Your task to perform on an android device: open app "Firefox Browser" (install if not already installed) and enter user name: "hashed@outlook.com" and password: "congestive" Image 0: 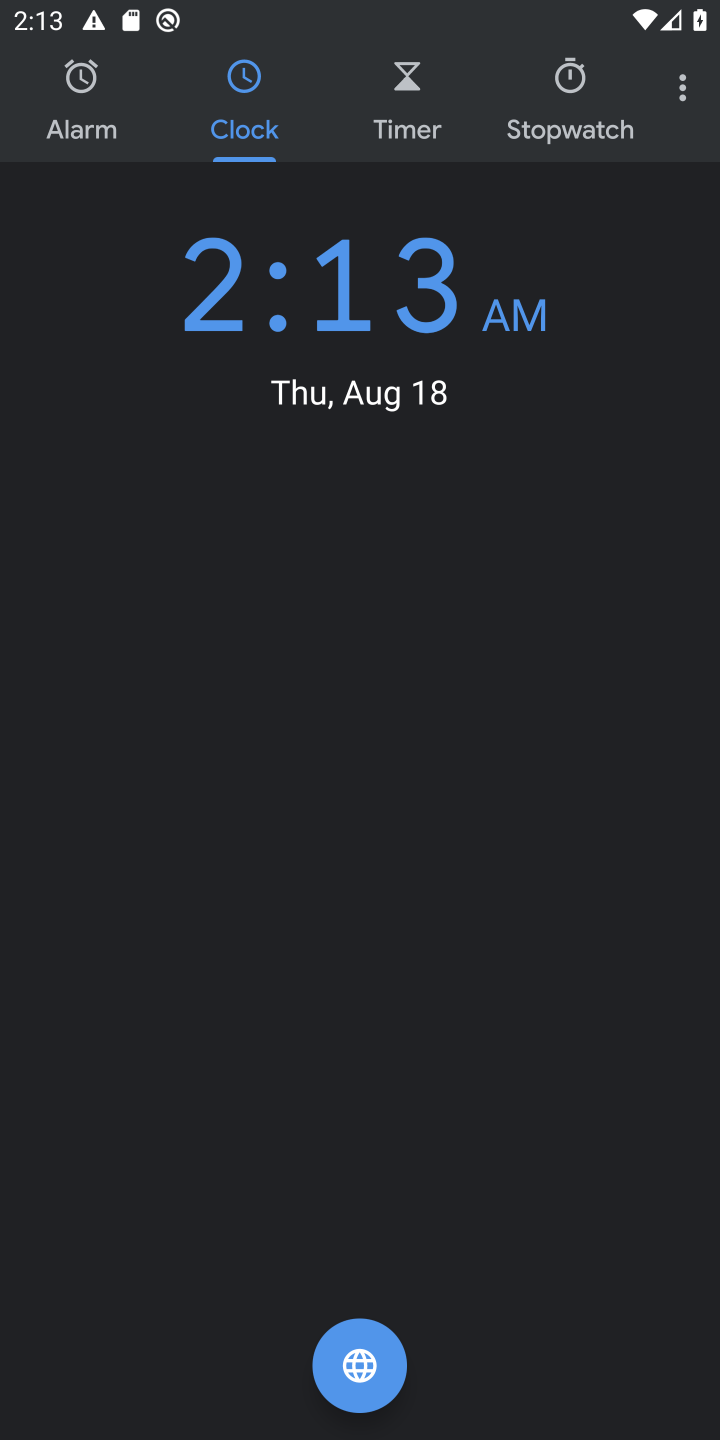
Step 0: press home button
Your task to perform on an android device: open app "Firefox Browser" (install if not already installed) and enter user name: "hashed@outlook.com" and password: "congestive" Image 1: 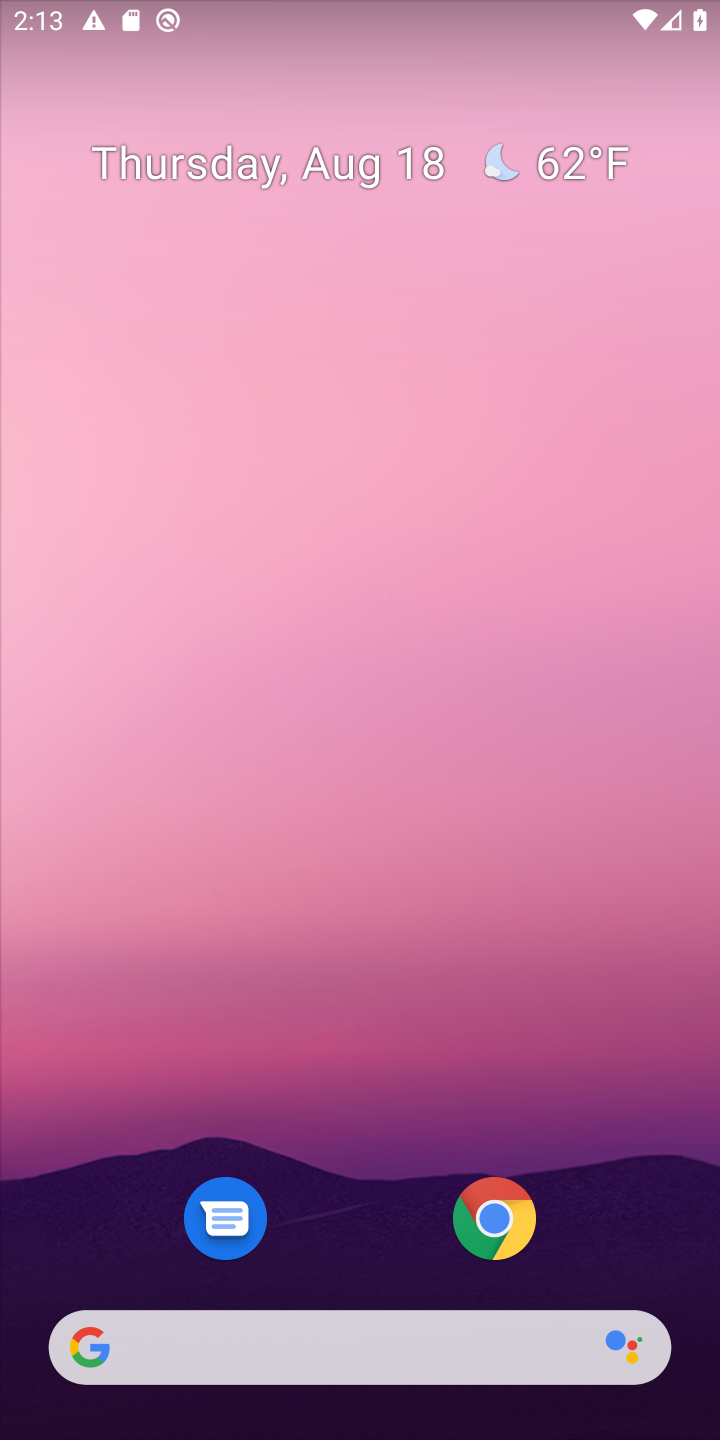
Step 1: drag from (350, 1147) to (302, 475)
Your task to perform on an android device: open app "Firefox Browser" (install if not already installed) and enter user name: "hashed@outlook.com" and password: "congestive" Image 2: 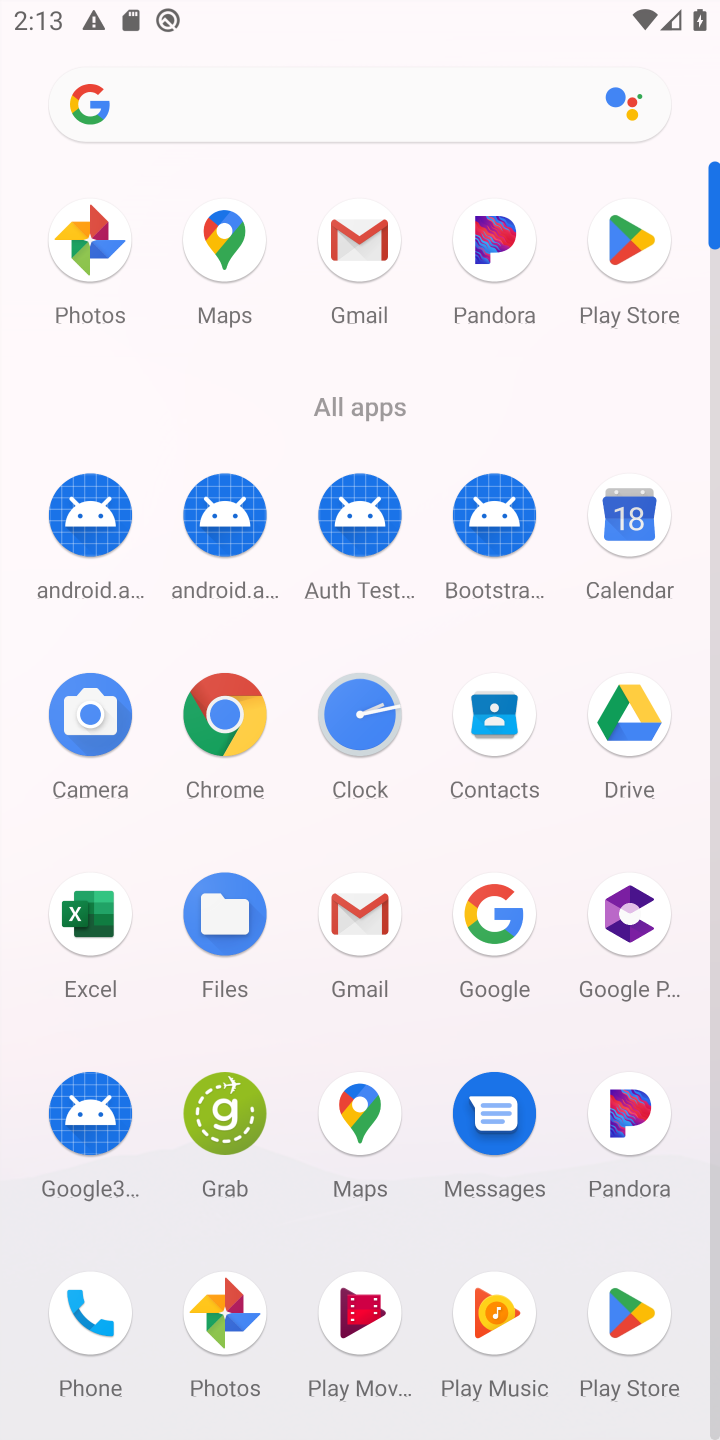
Step 2: click (593, 233)
Your task to perform on an android device: open app "Firefox Browser" (install if not already installed) and enter user name: "hashed@outlook.com" and password: "congestive" Image 3: 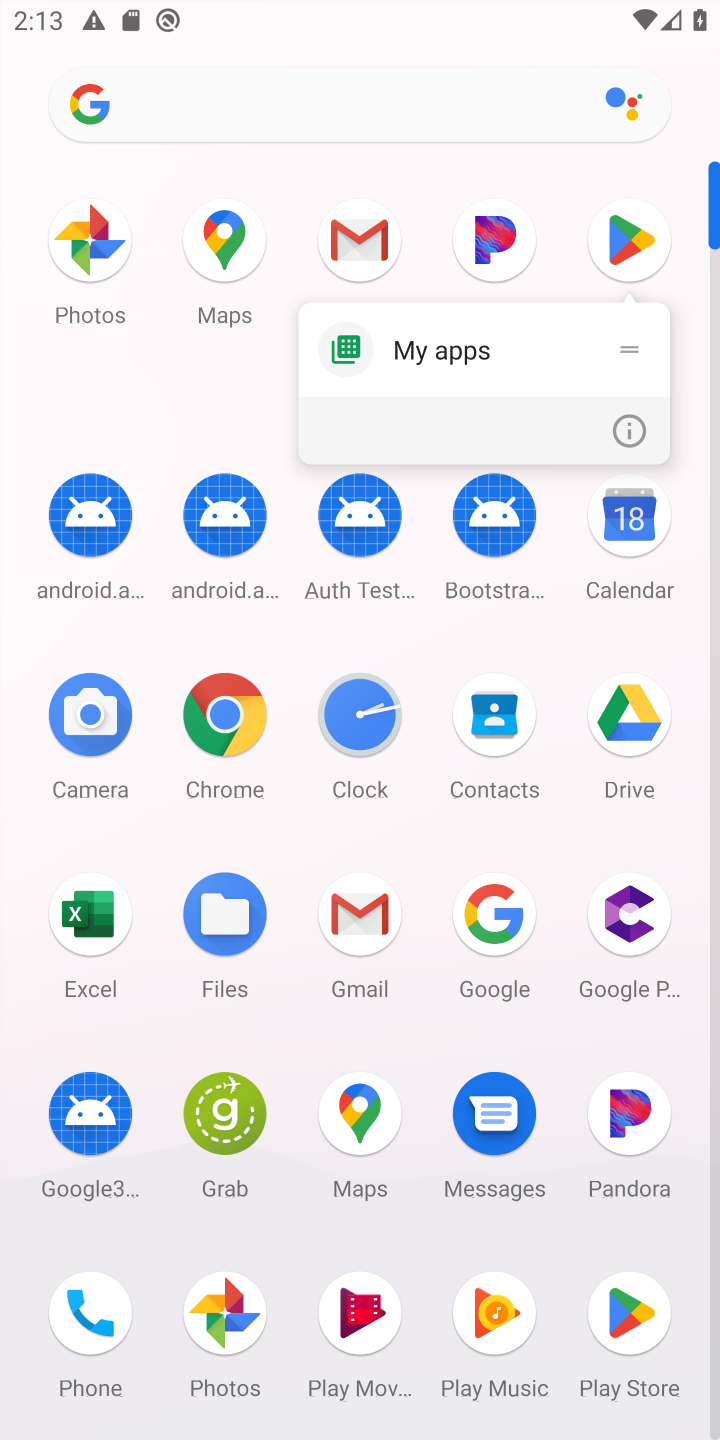
Step 3: click (605, 237)
Your task to perform on an android device: open app "Firefox Browser" (install if not already installed) and enter user name: "hashed@outlook.com" and password: "congestive" Image 4: 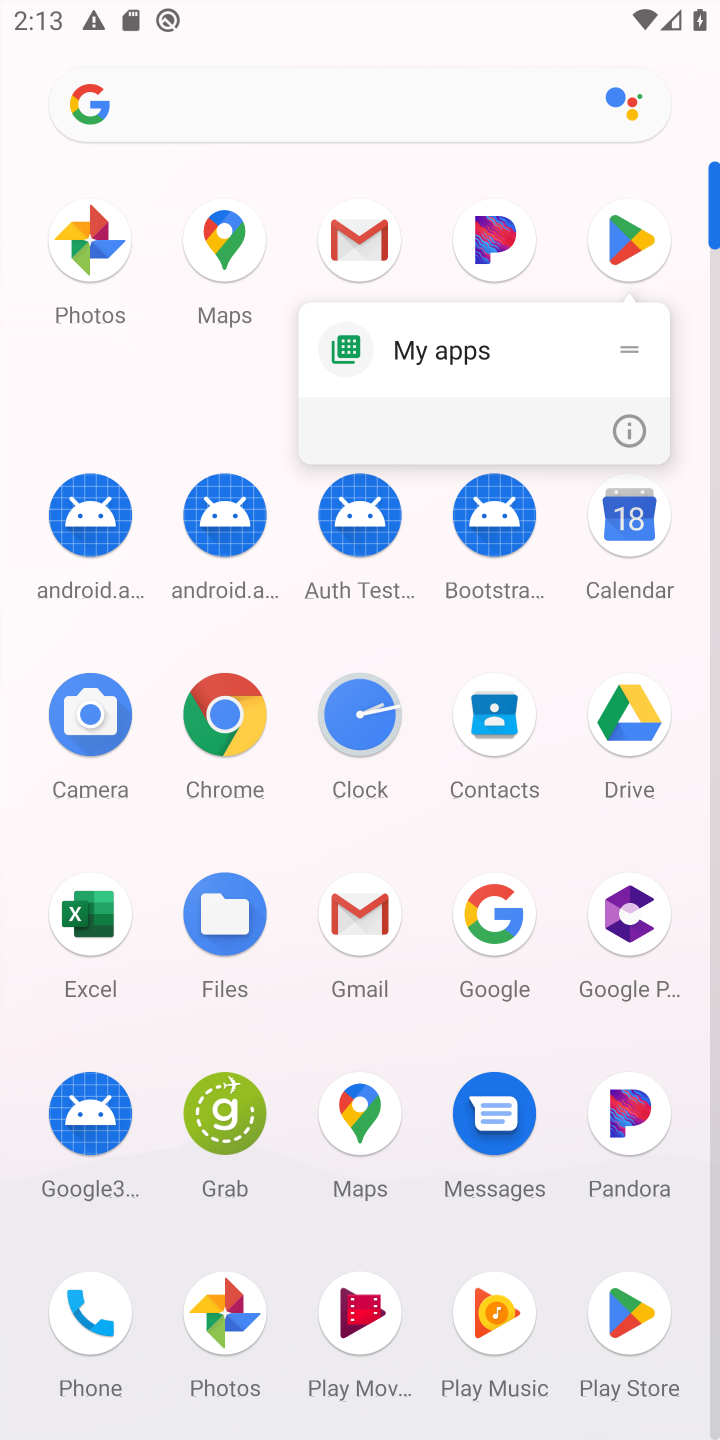
Step 4: click (619, 237)
Your task to perform on an android device: open app "Firefox Browser" (install if not already installed) and enter user name: "hashed@outlook.com" and password: "congestive" Image 5: 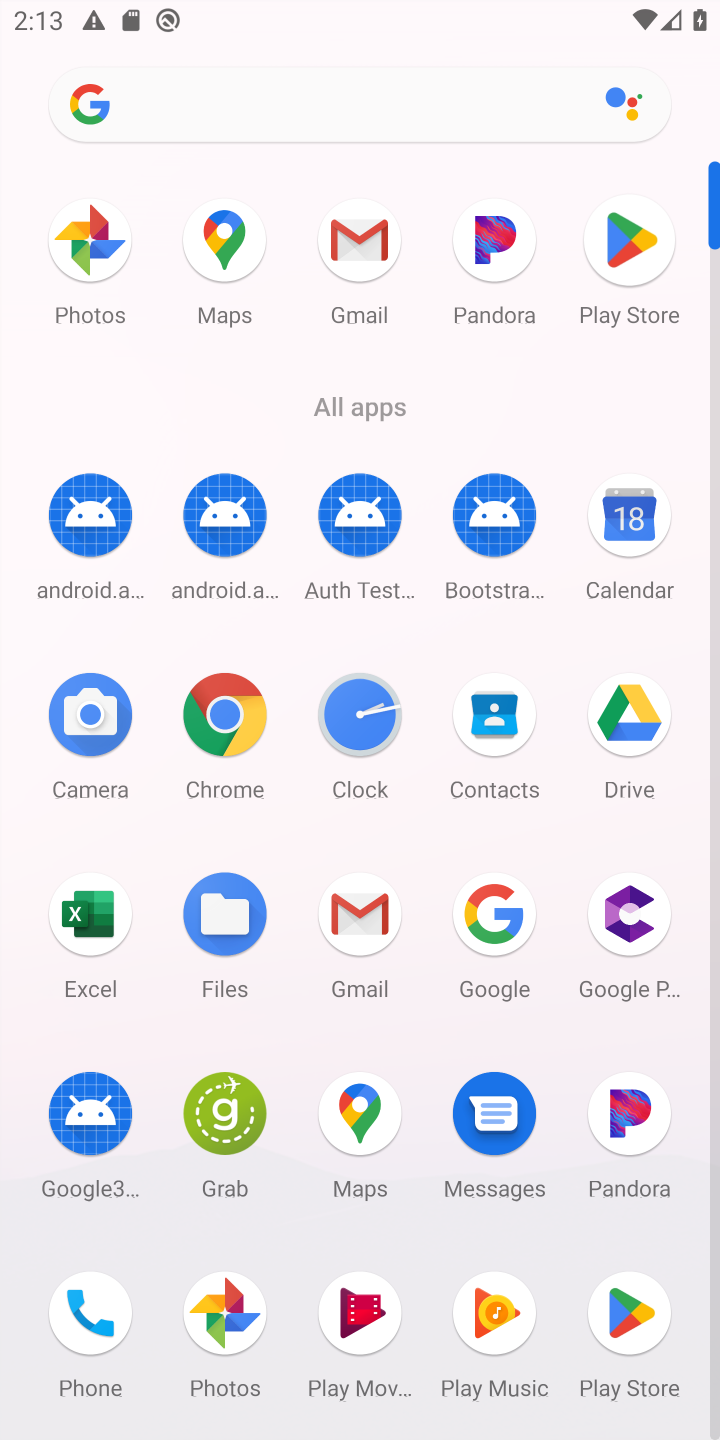
Step 5: click (619, 237)
Your task to perform on an android device: open app "Firefox Browser" (install if not already installed) and enter user name: "hashed@outlook.com" and password: "congestive" Image 6: 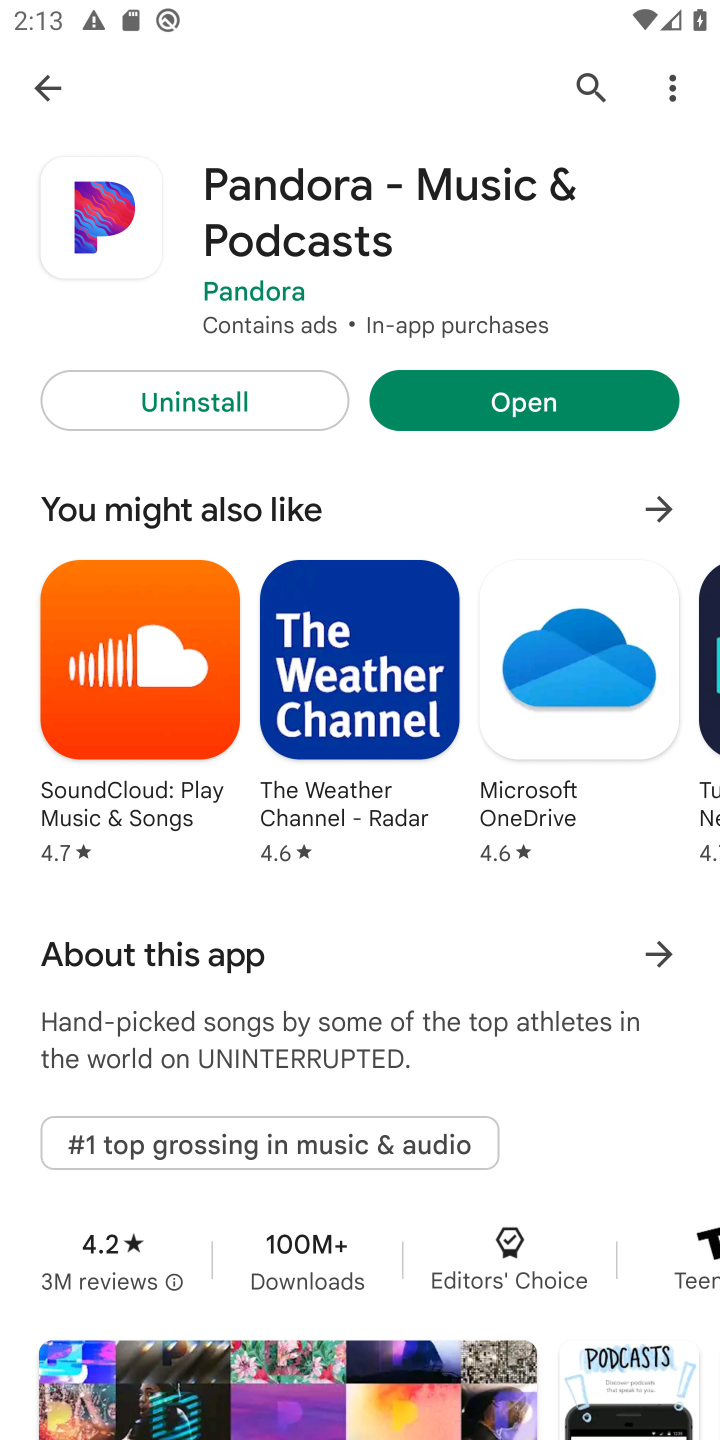
Step 6: click (611, 94)
Your task to perform on an android device: open app "Firefox Browser" (install if not already installed) and enter user name: "hashed@outlook.com" and password: "congestive" Image 7: 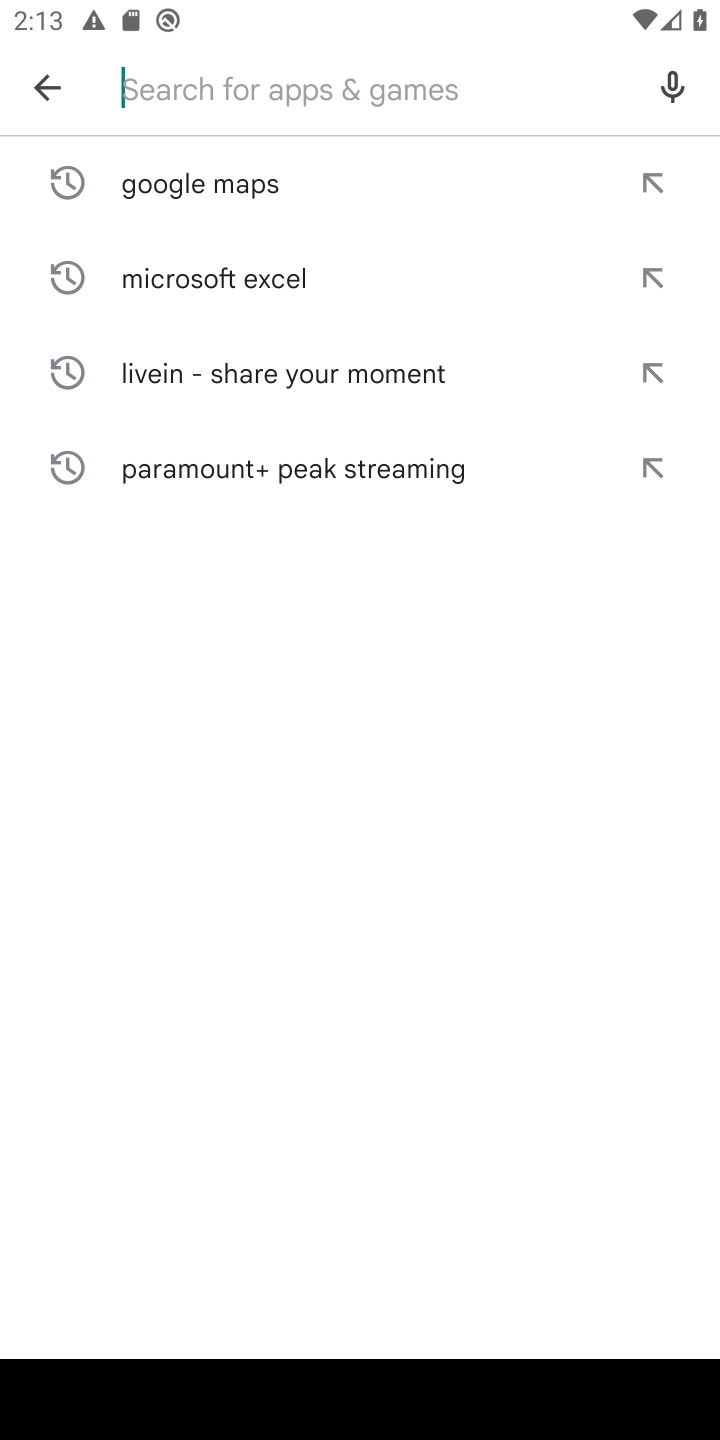
Step 7: type "Firefox Browser"
Your task to perform on an android device: open app "Firefox Browser" (install if not already installed) and enter user name: "hashed@outlook.com" and password: "congestive" Image 8: 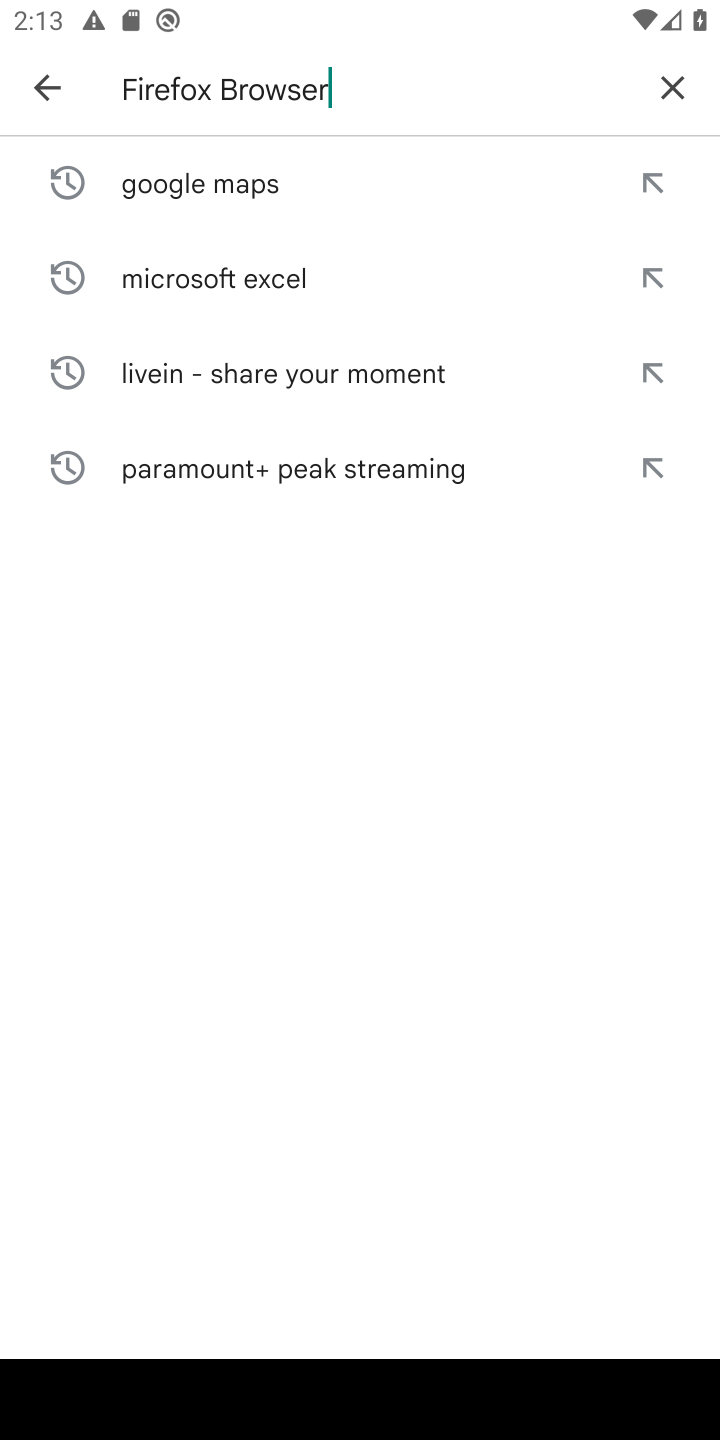
Step 8: type ""
Your task to perform on an android device: open app "Firefox Browser" (install if not already installed) and enter user name: "hashed@outlook.com" and password: "congestive" Image 9: 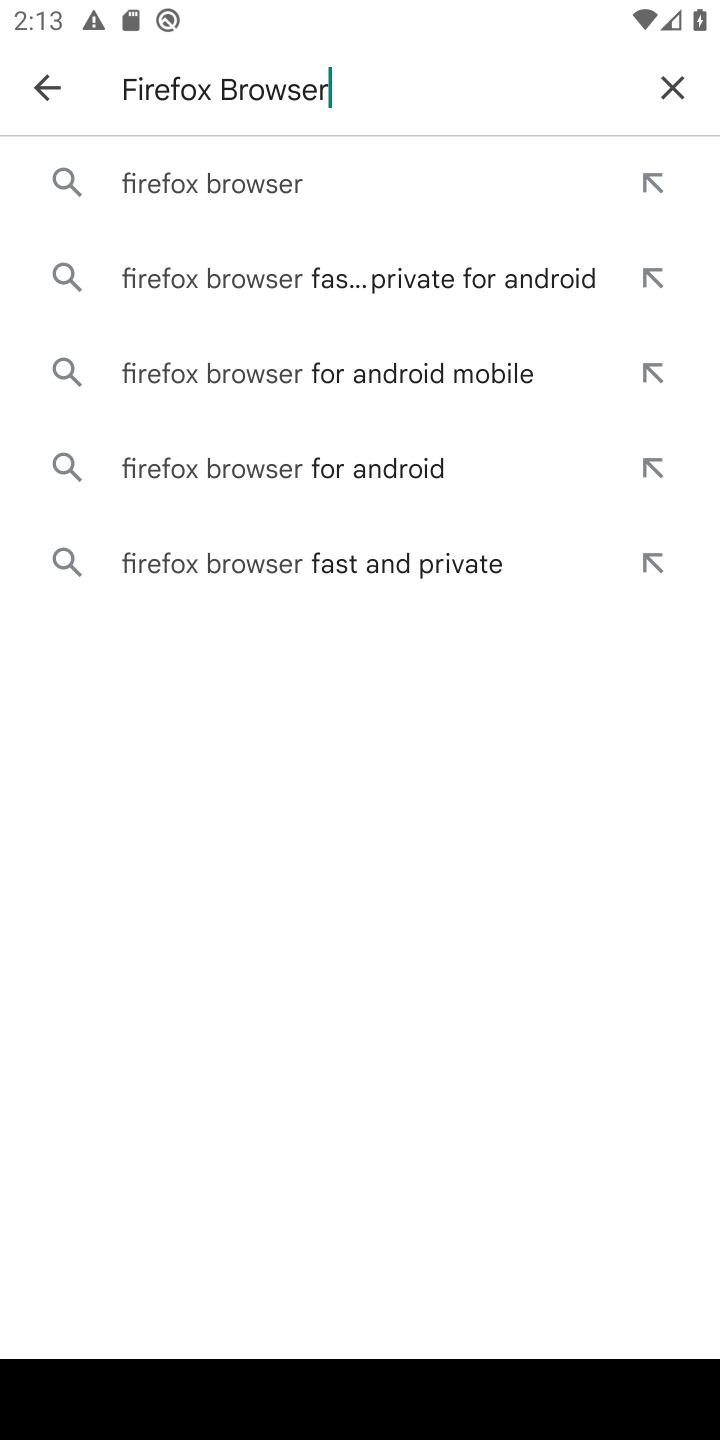
Step 9: click (258, 186)
Your task to perform on an android device: open app "Firefox Browser" (install if not already installed) and enter user name: "hashed@outlook.com" and password: "congestive" Image 10: 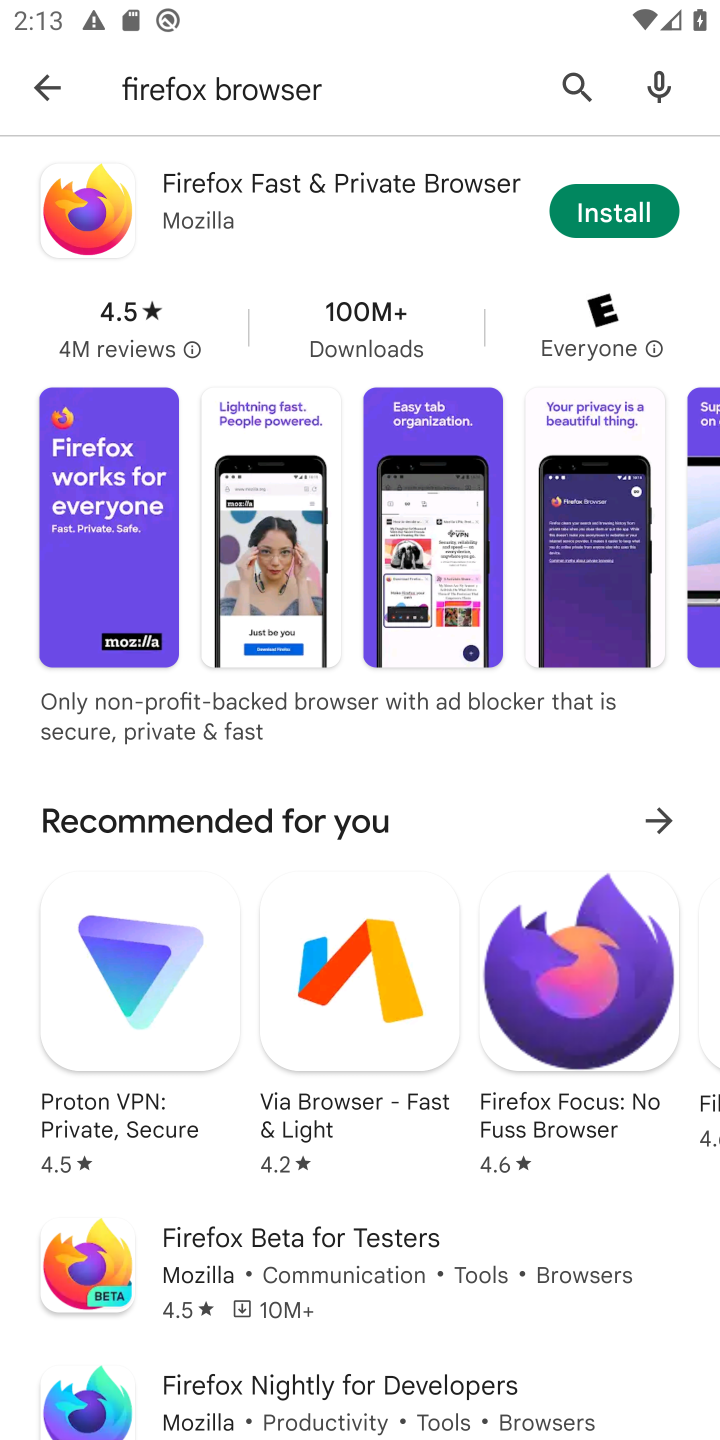
Step 10: click (608, 206)
Your task to perform on an android device: open app "Firefox Browser" (install if not already installed) and enter user name: "hashed@outlook.com" and password: "congestive" Image 11: 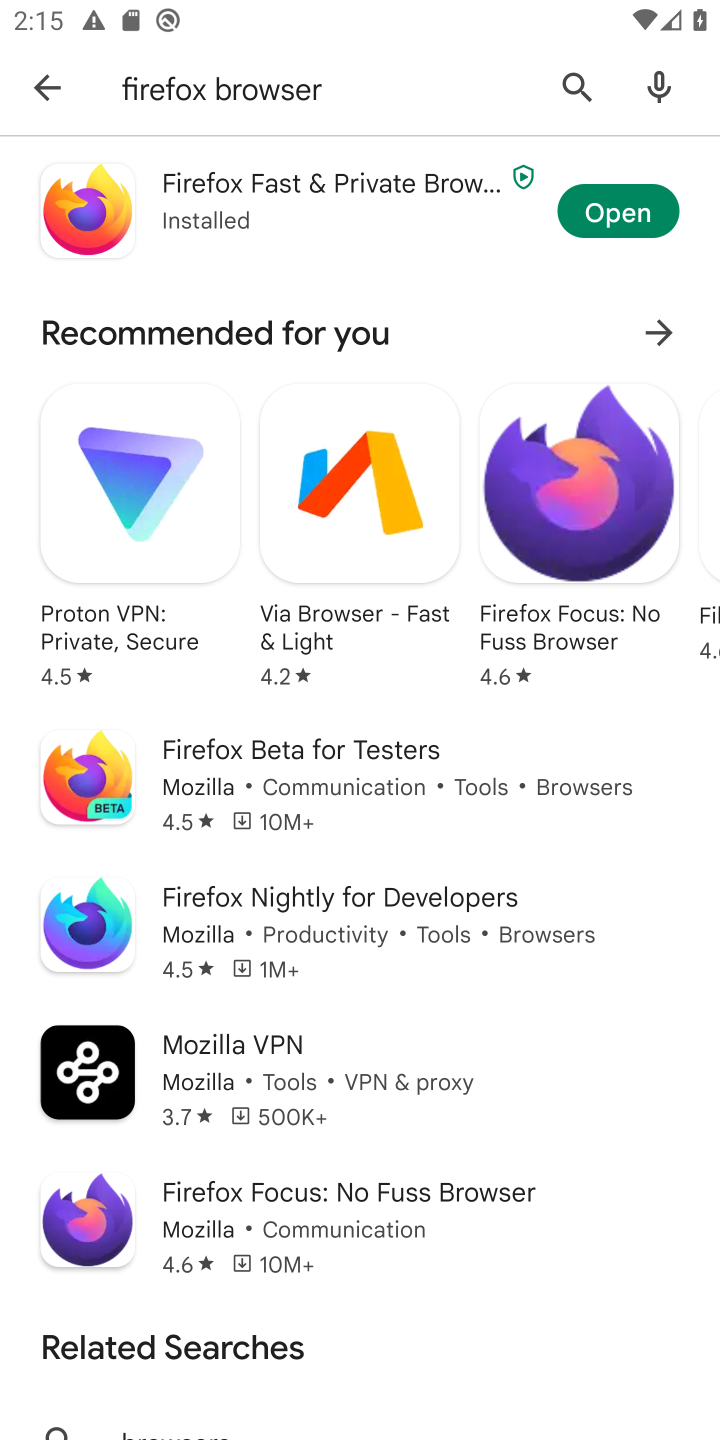
Step 11: click (654, 204)
Your task to perform on an android device: open app "Firefox Browser" (install if not already installed) and enter user name: "hashed@outlook.com" and password: "congestive" Image 12: 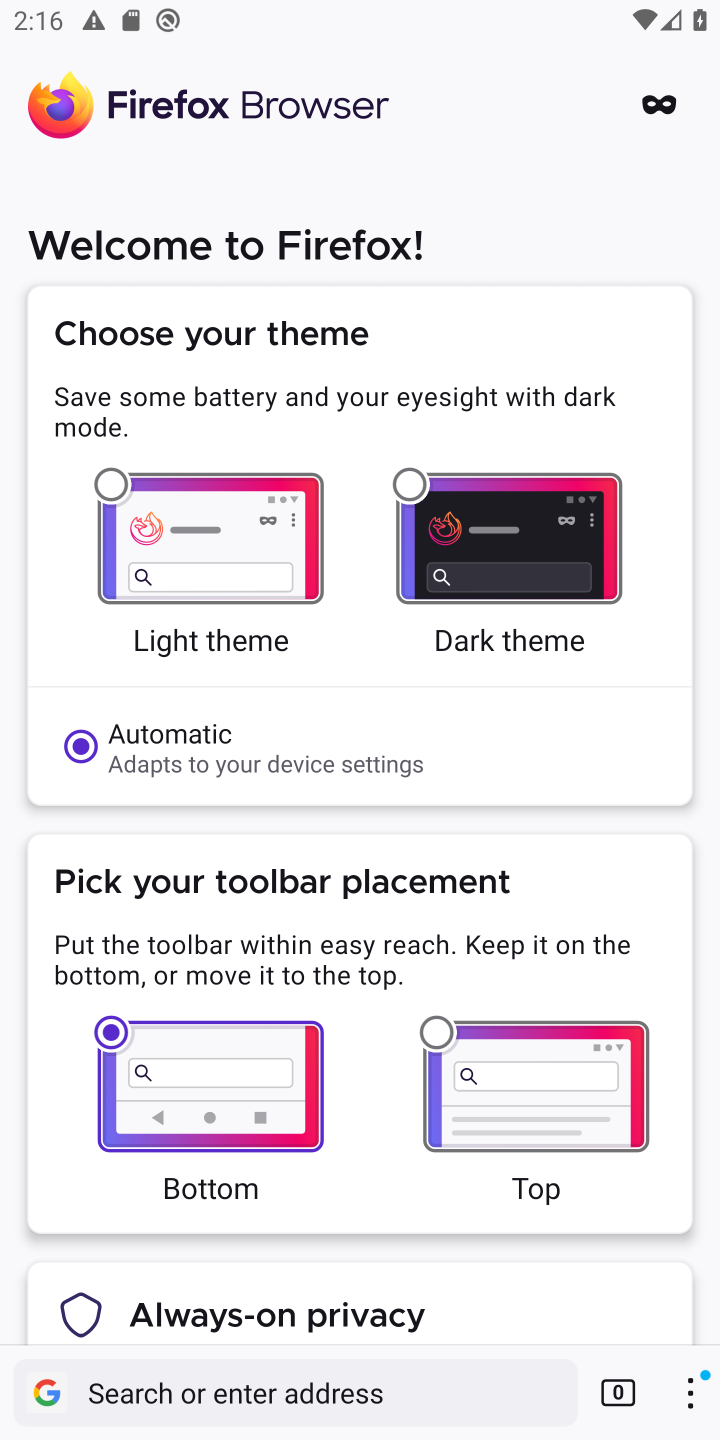
Step 12: task complete